Your task to perform on an android device: Open privacy settings Image 0: 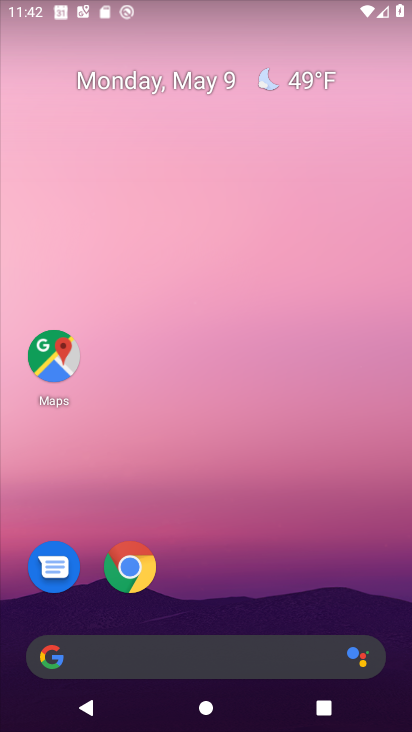
Step 0: drag from (239, 616) to (208, 164)
Your task to perform on an android device: Open privacy settings Image 1: 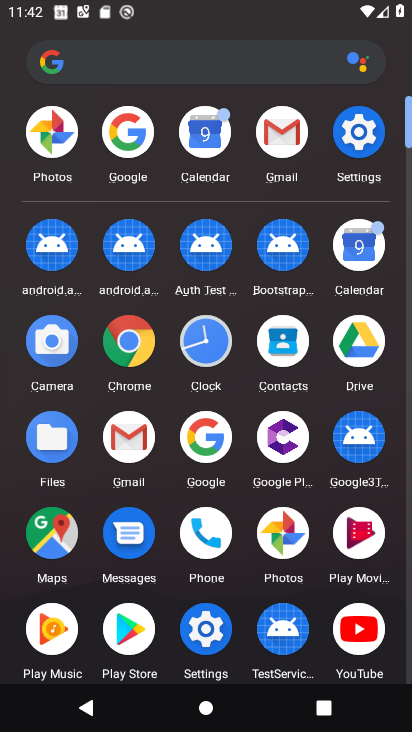
Step 1: click (373, 134)
Your task to perform on an android device: Open privacy settings Image 2: 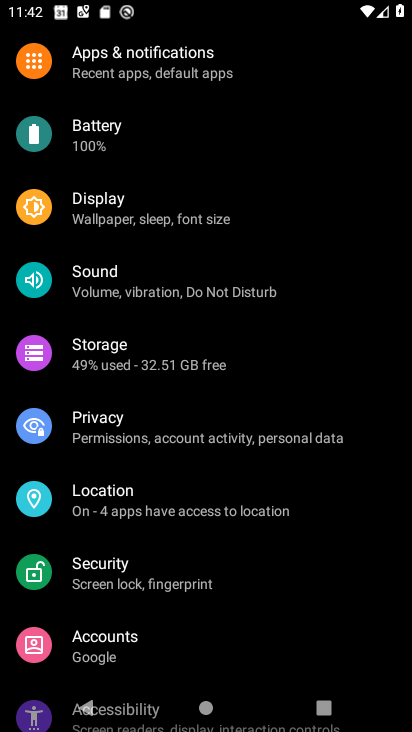
Step 2: click (109, 420)
Your task to perform on an android device: Open privacy settings Image 3: 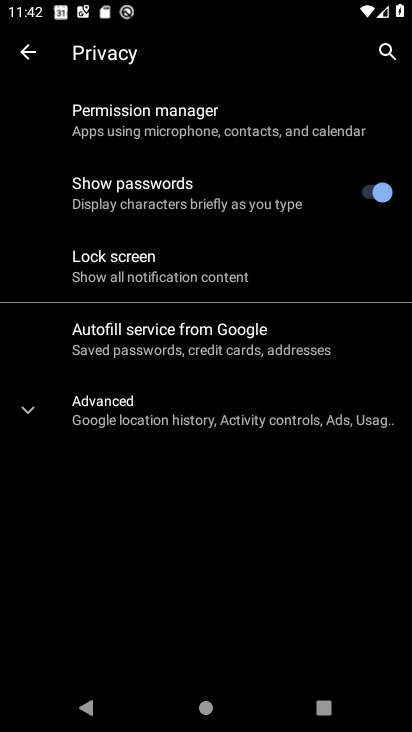
Step 3: click (84, 407)
Your task to perform on an android device: Open privacy settings Image 4: 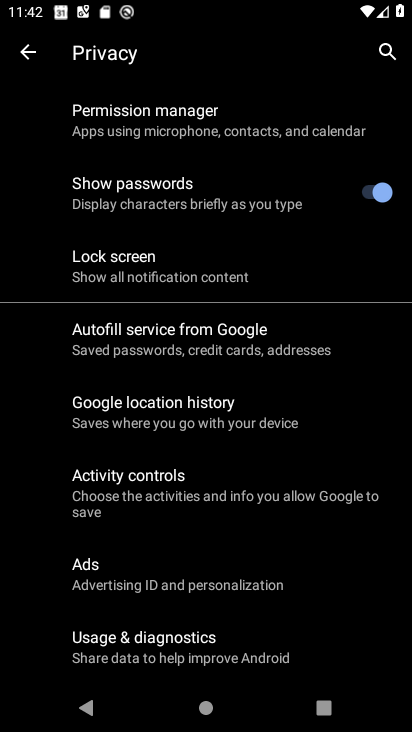
Step 4: task complete